Your task to perform on an android device: Show the shopping cart on ebay.com. Search for dell alienware on ebay.com, select the first entry, and add it to the cart. Image 0: 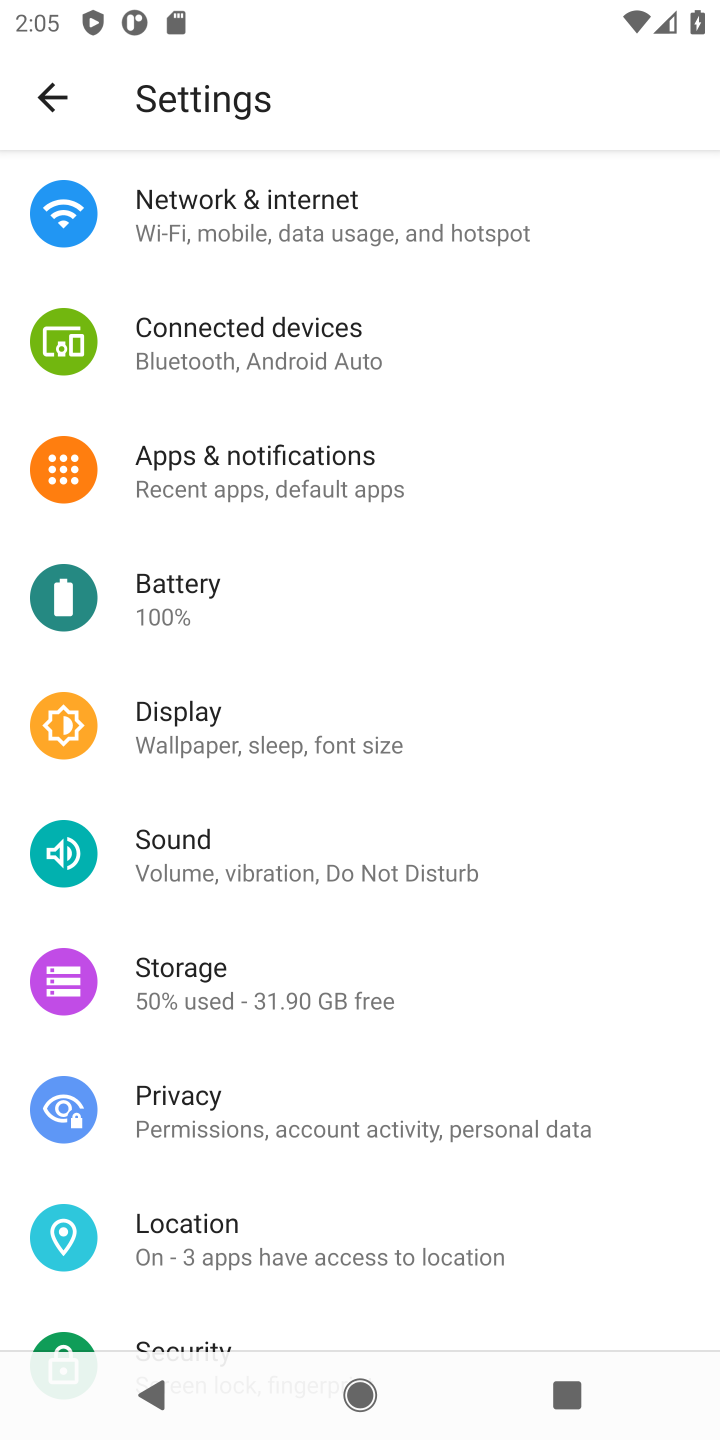
Step 0: press home button
Your task to perform on an android device: Show the shopping cart on ebay.com. Search for dell alienware on ebay.com, select the first entry, and add it to the cart. Image 1: 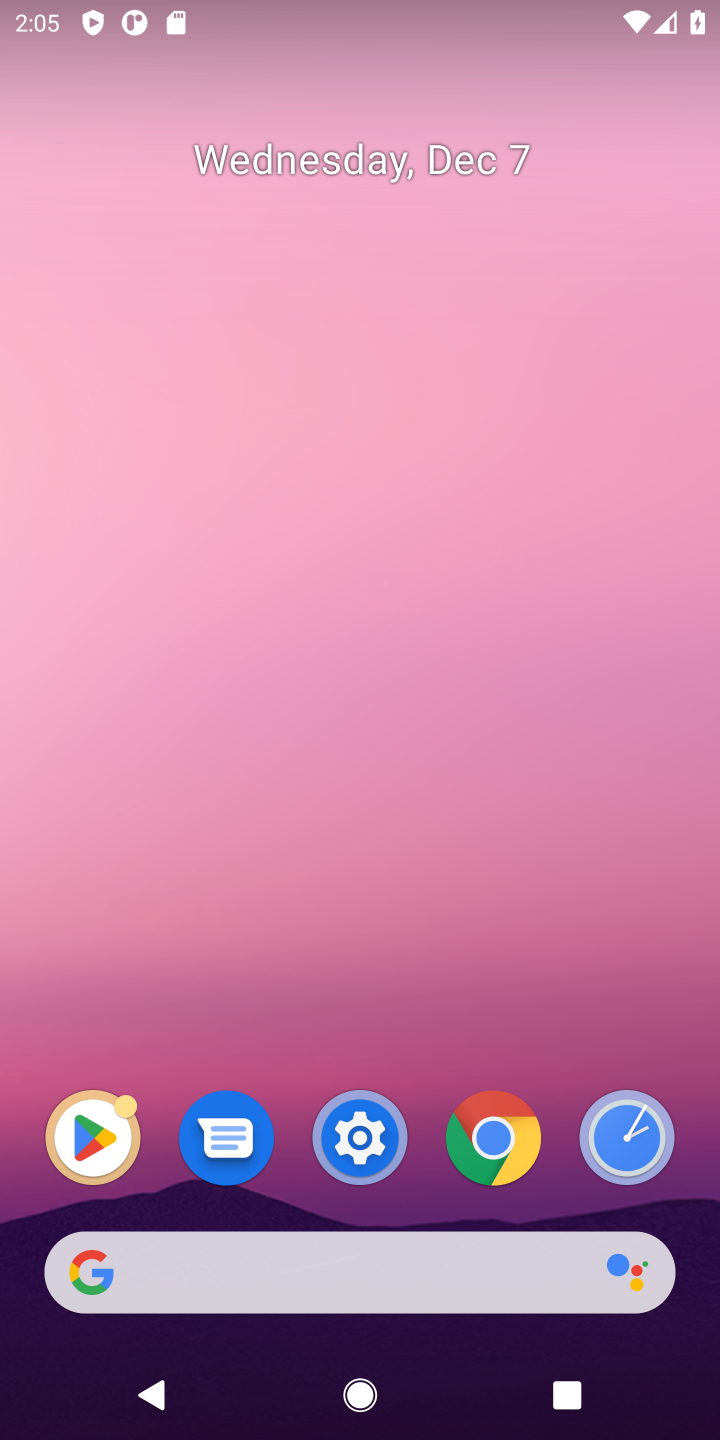
Step 1: click (366, 1290)
Your task to perform on an android device: Show the shopping cart on ebay.com. Search for dell alienware on ebay.com, select the first entry, and add it to the cart. Image 2: 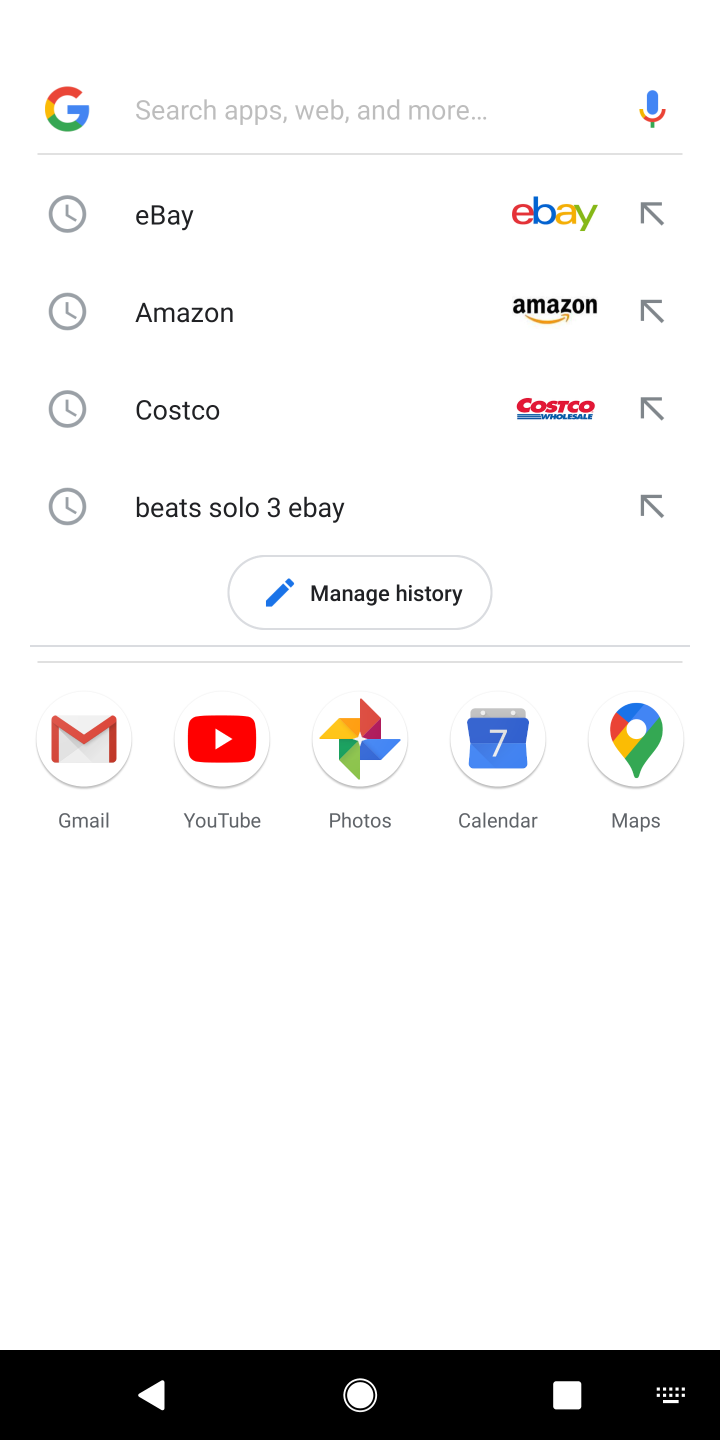
Step 2: type "ebay.com"
Your task to perform on an android device: Show the shopping cart on ebay.com. Search for dell alienware on ebay.com, select the first entry, and add it to the cart. Image 3: 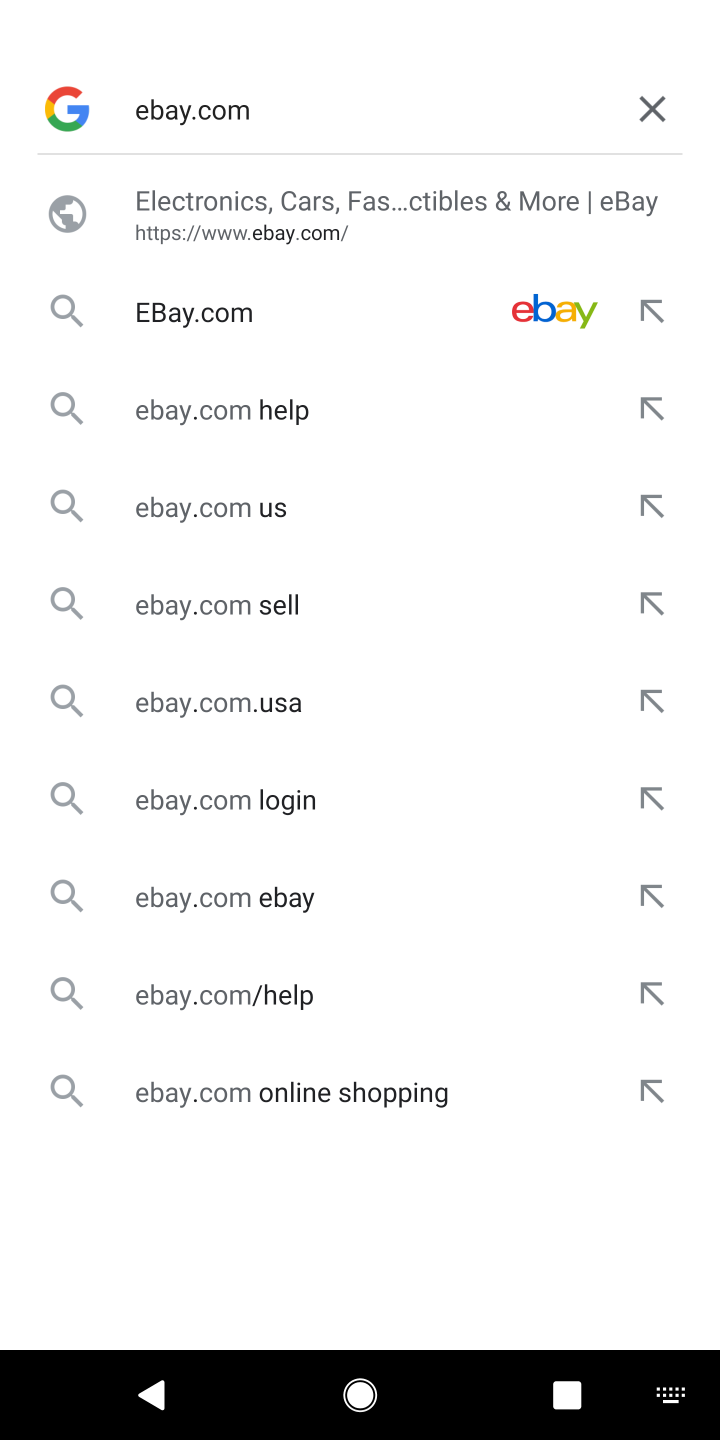
Step 3: click (267, 252)
Your task to perform on an android device: Show the shopping cart on ebay.com. Search for dell alienware on ebay.com, select the first entry, and add it to the cart. Image 4: 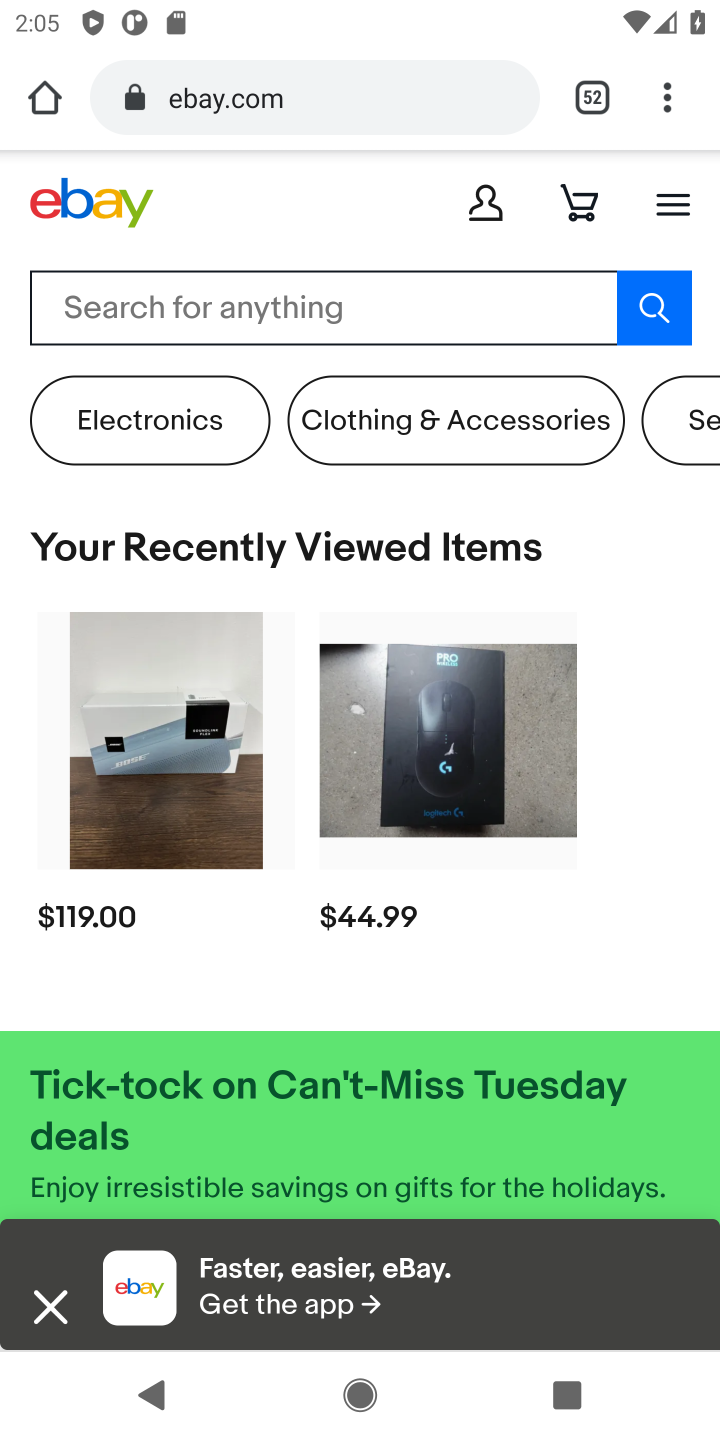
Step 4: click (207, 325)
Your task to perform on an android device: Show the shopping cart on ebay.com. Search for dell alienware on ebay.com, select the first entry, and add it to the cart. Image 5: 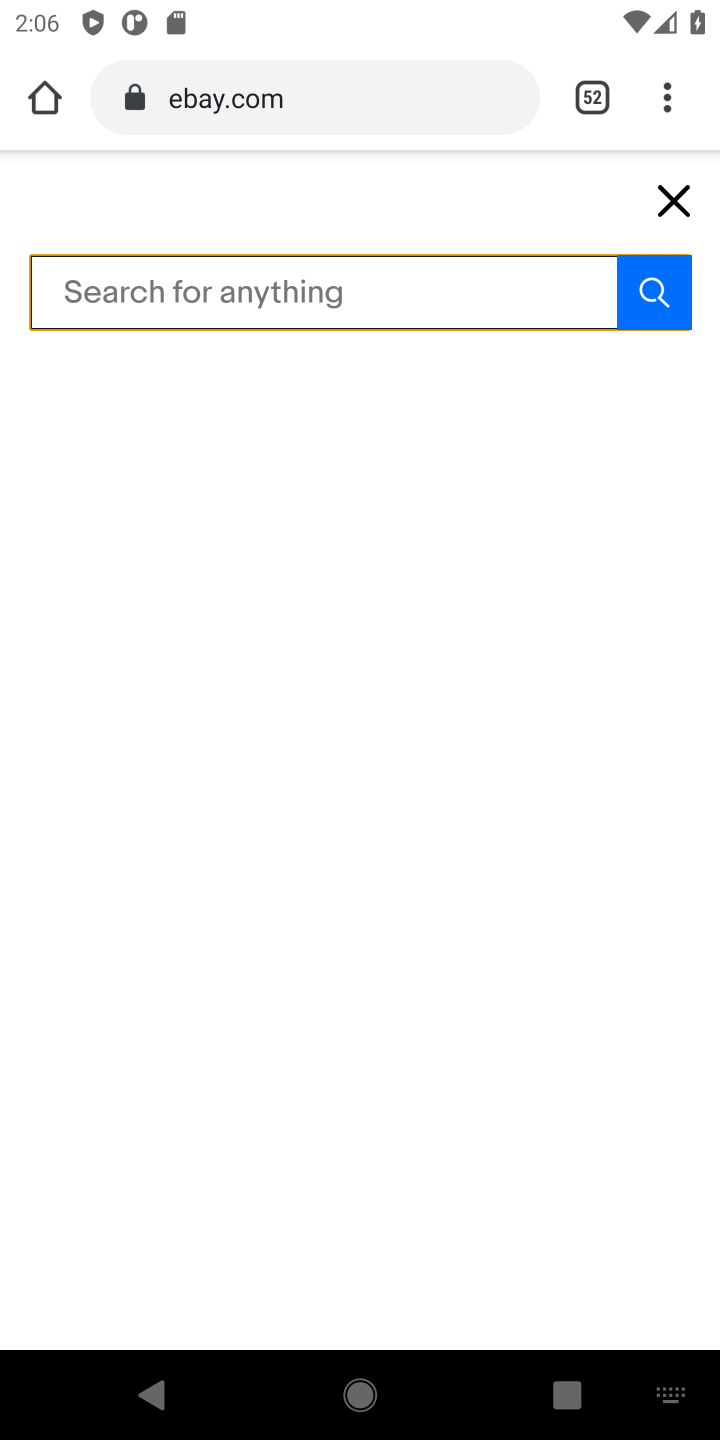
Step 5: type "dell alienware"
Your task to perform on an android device: Show the shopping cart on ebay.com. Search for dell alienware on ebay.com, select the first entry, and add it to the cart. Image 6: 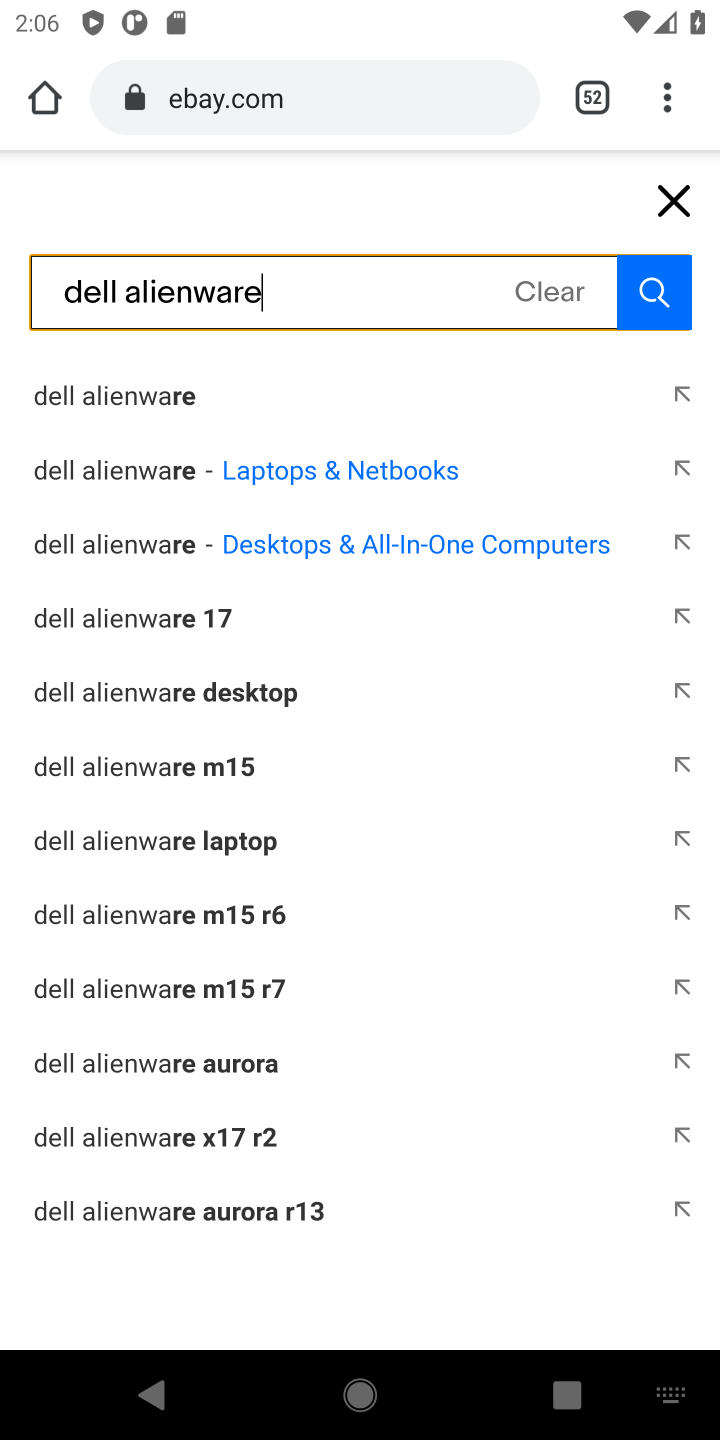
Step 6: click (182, 407)
Your task to perform on an android device: Show the shopping cart on ebay.com. Search for dell alienware on ebay.com, select the first entry, and add it to the cart. Image 7: 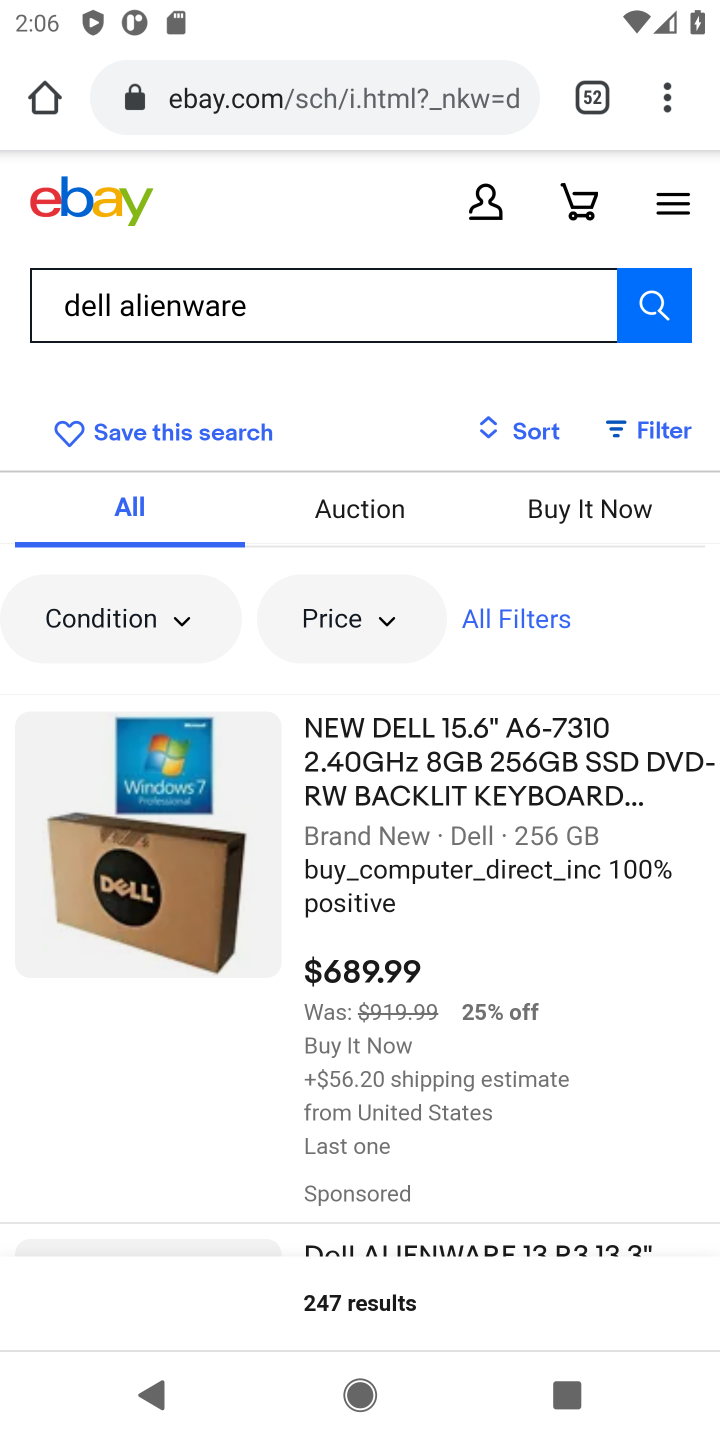
Step 7: task complete